Your task to perform on an android device: check battery use Image 0: 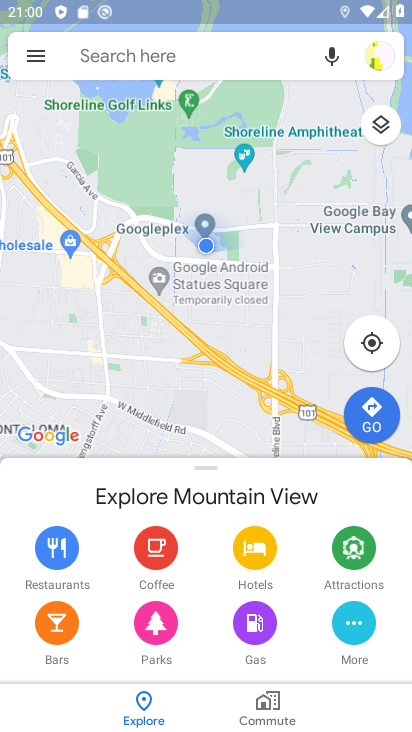
Step 0: press back button
Your task to perform on an android device: check battery use Image 1: 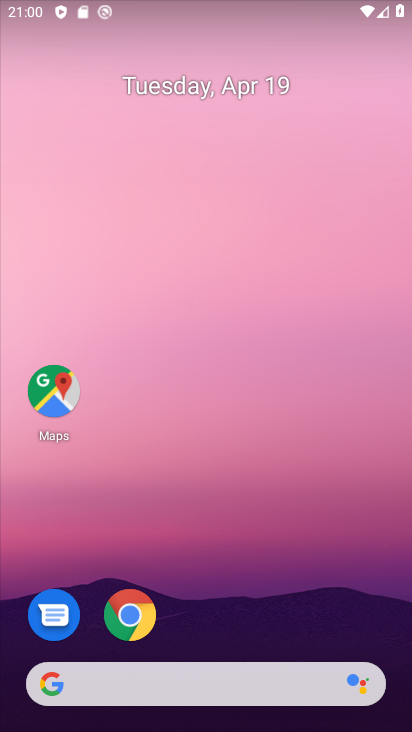
Step 1: drag from (197, 515) to (226, 273)
Your task to perform on an android device: check battery use Image 2: 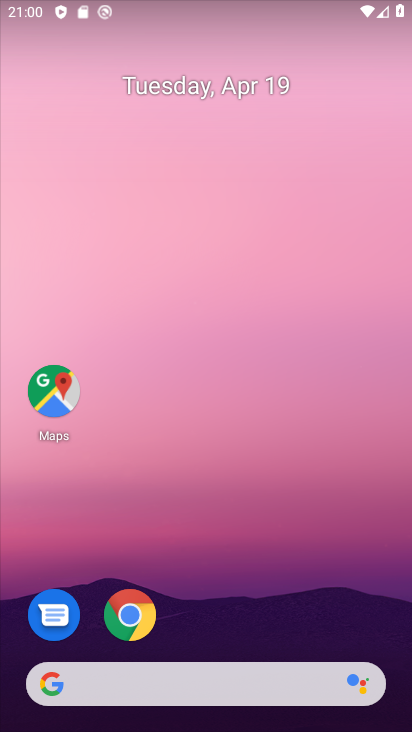
Step 2: drag from (231, 657) to (253, 236)
Your task to perform on an android device: check battery use Image 3: 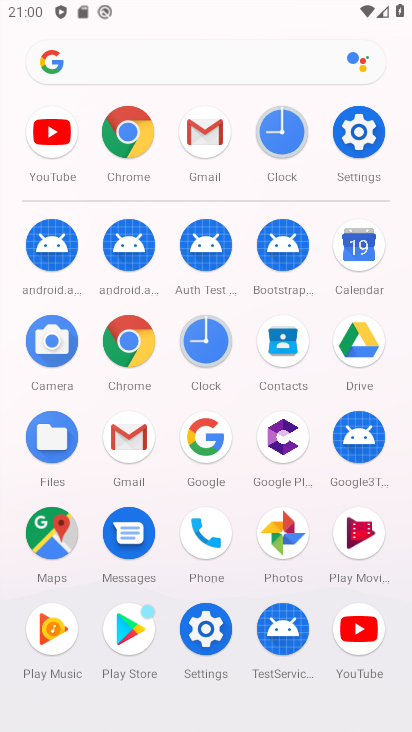
Step 3: click (349, 132)
Your task to perform on an android device: check battery use Image 4: 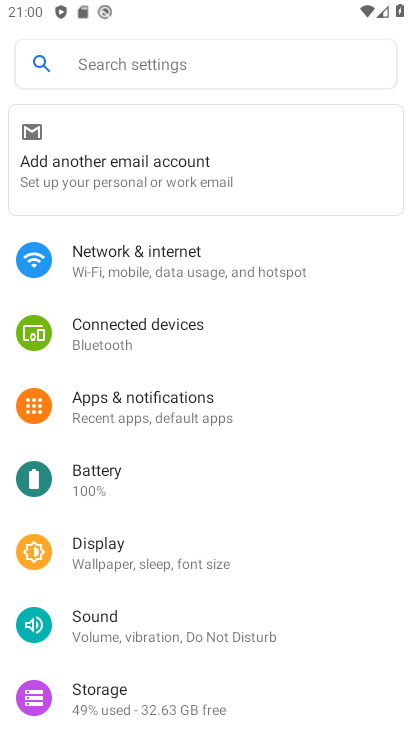
Step 4: click (123, 472)
Your task to perform on an android device: check battery use Image 5: 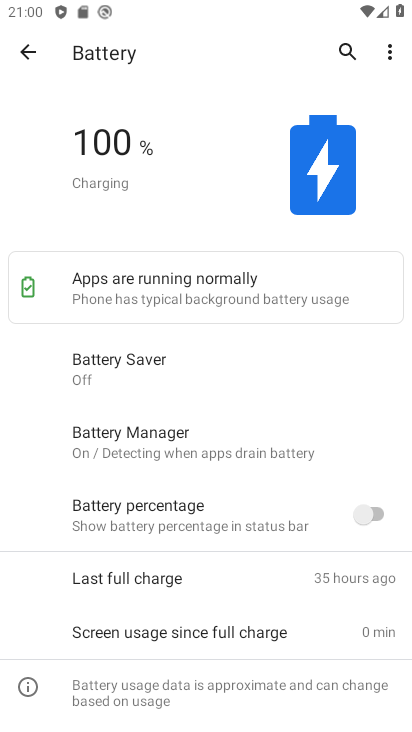
Step 5: click (389, 45)
Your task to perform on an android device: check battery use Image 6: 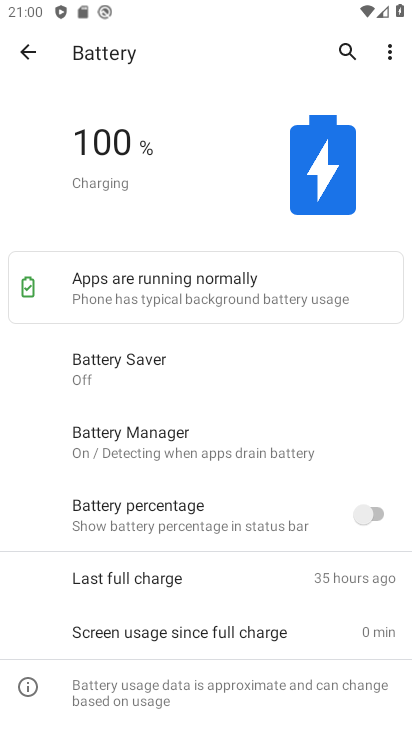
Step 6: click (387, 46)
Your task to perform on an android device: check battery use Image 7: 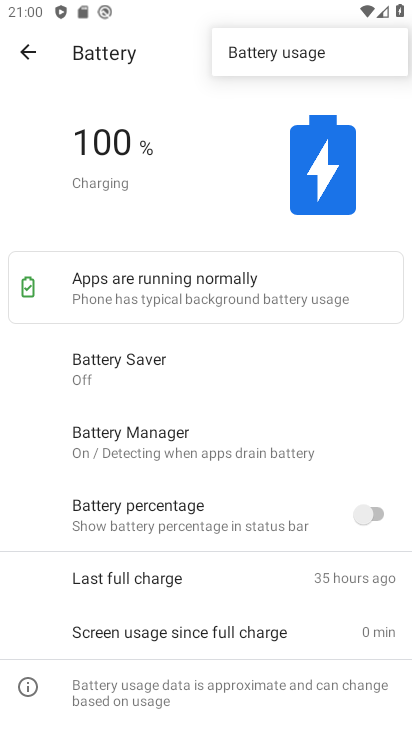
Step 7: click (292, 61)
Your task to perform on an android device: check battery use Image 8: 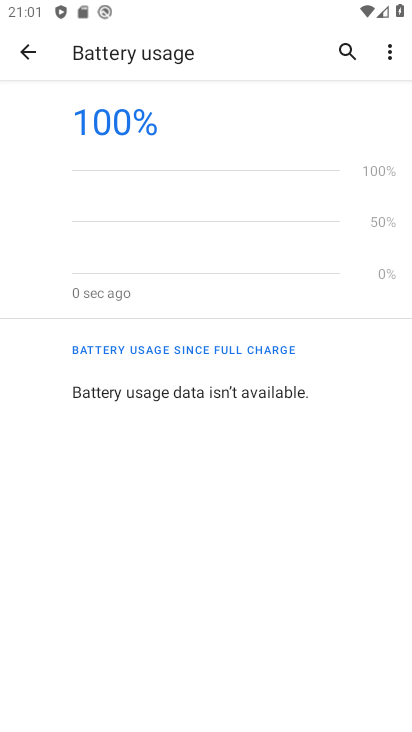
Step 8: task complete